Your task to perform on an android device: empty trash in the gmail app Image 0: 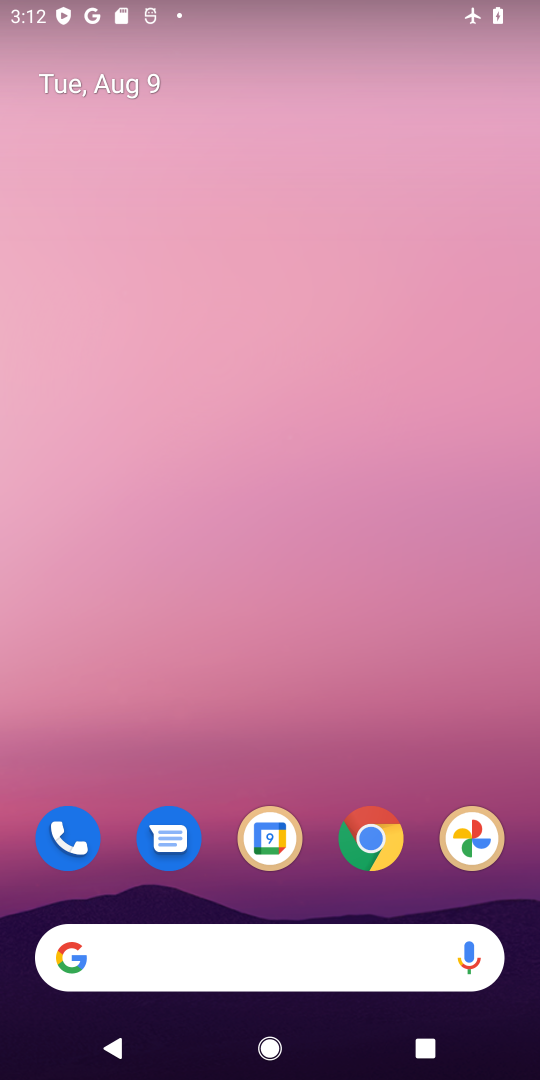
Step 0: drag from (303, 896) to (291, 52)
Your task to perform on an android device: empty trash in the gmail app Image 1: 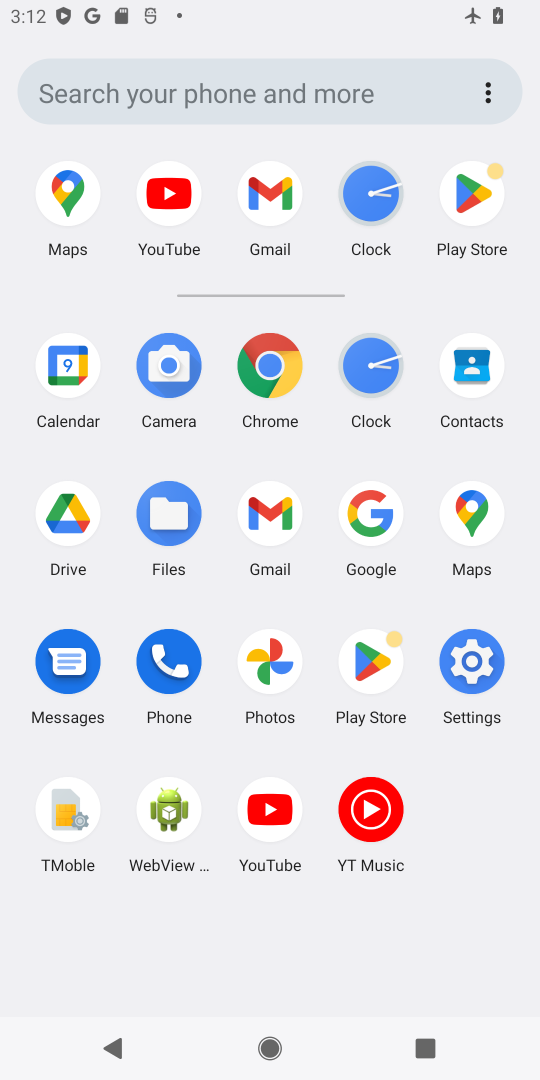
Step 1: click (365, 496)
Your task to perform on an android device: empty trash in the gmail app Image 2: 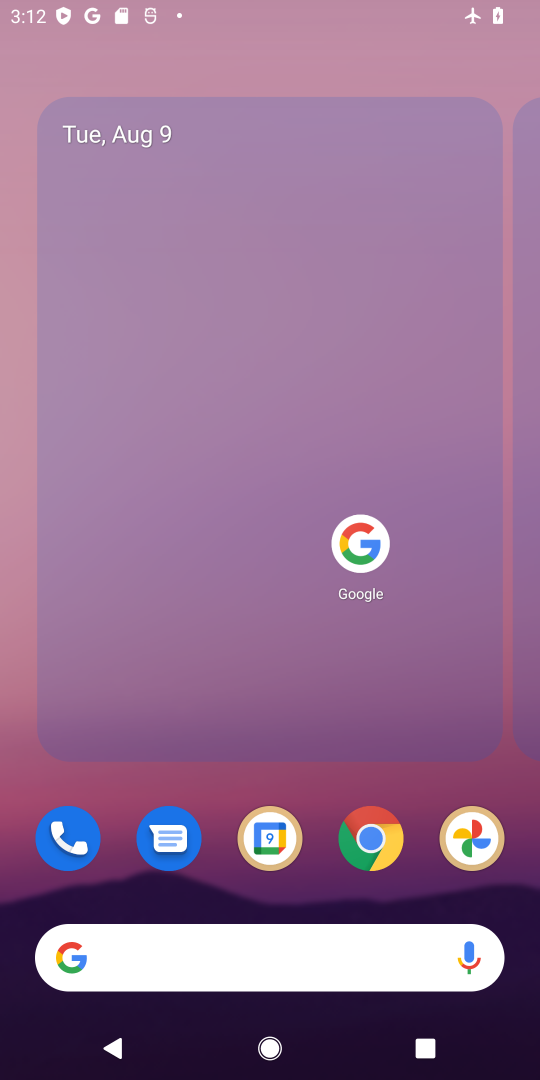
Step 2: drag from (253, 684) to (262, 11)
Your task to perform on an android device: empty trash in the gmail app Image 3: 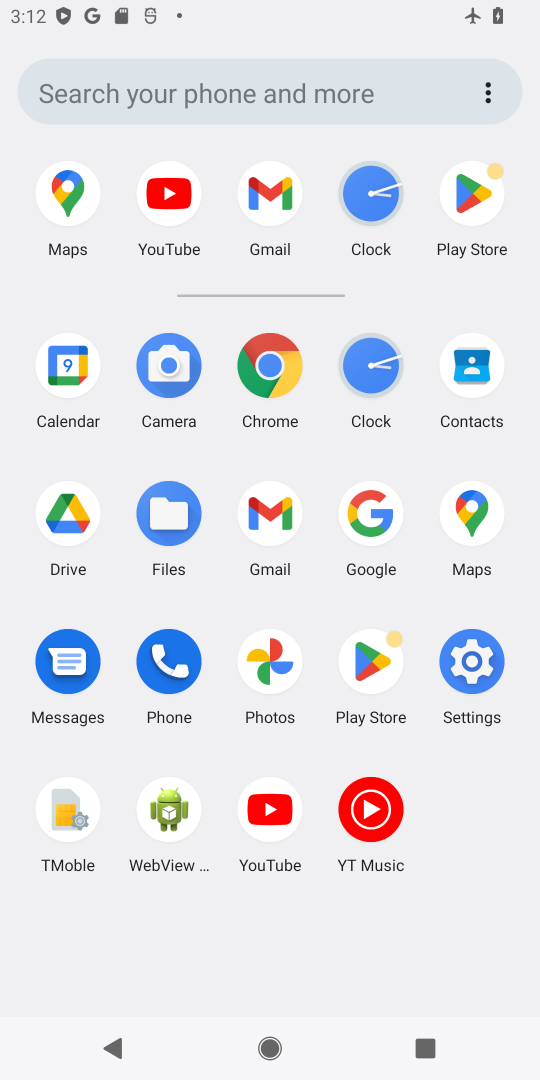
Step 3: click (275, 518)
Your task to perform on an android device: empty trash in the gmail app Image 4: 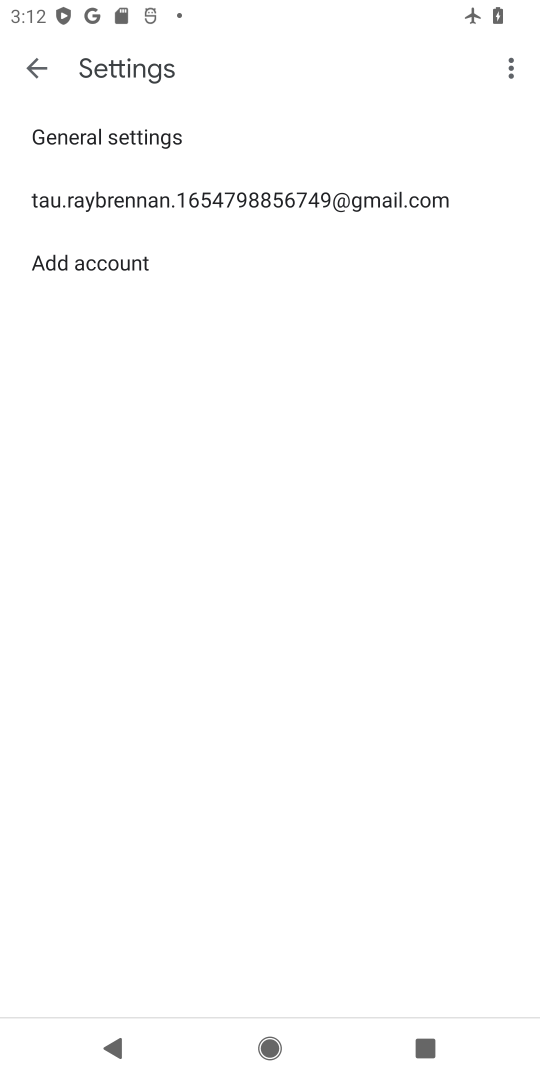
Step 4: press back button
Your task to perform on an android device: empty trash in the gmail app Image 5: 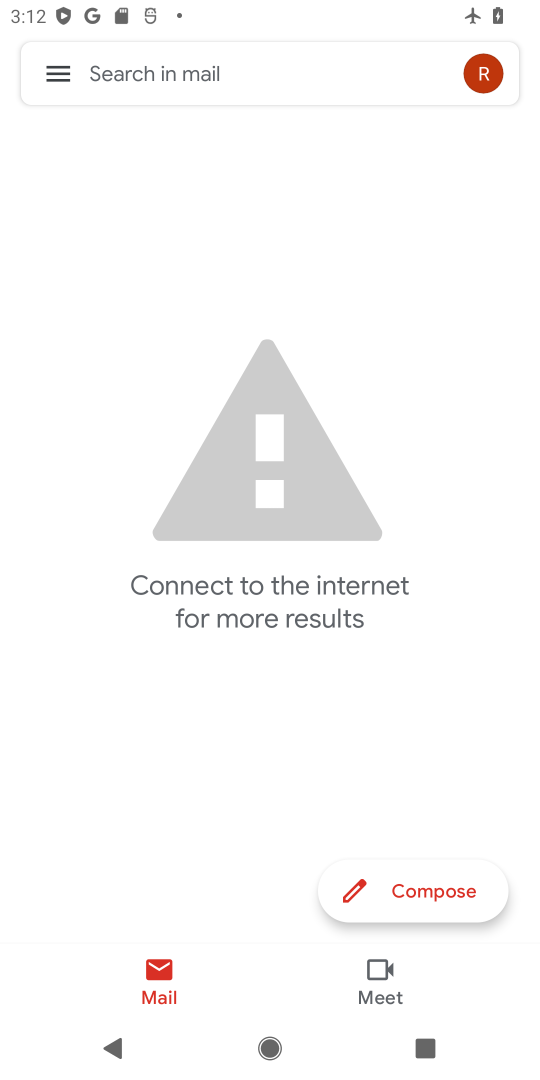
Step 5: click (38, 78)
Your task to perform on an android device: empty trash in the gmail app Image 6: 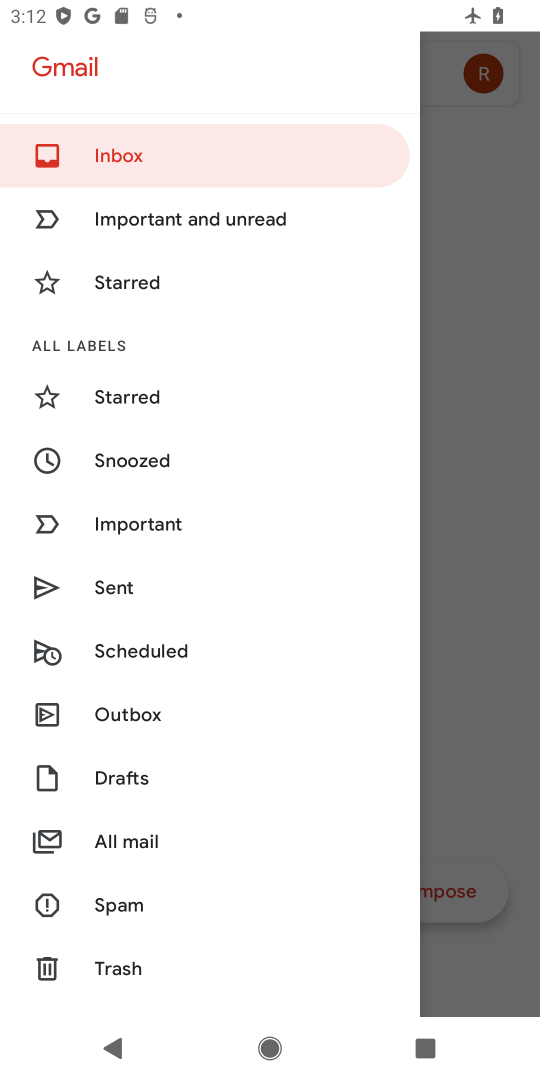
Step 6: click (115, 957)
Your task to perform on an android device: empty trash in the gmail app Image 7: 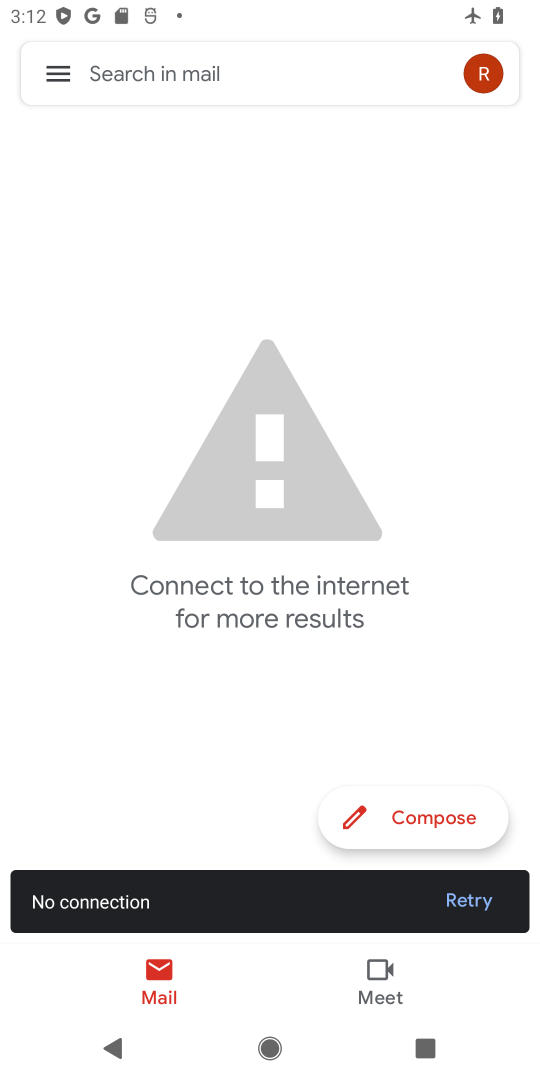
Step 7: task complete